Your task to perform on an android device: toggle priority inbox in the gmail app Image 0: 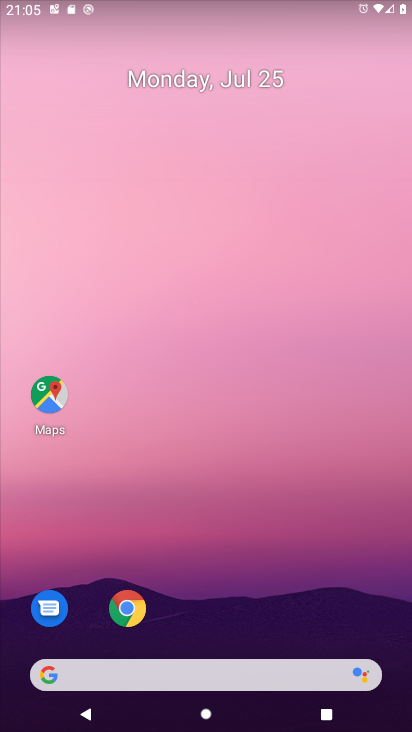
Step 0: drag from (232, 609) to (253, 36)
Your task to perform on an android device: toggle priority inbox in the gmail app Image 1: 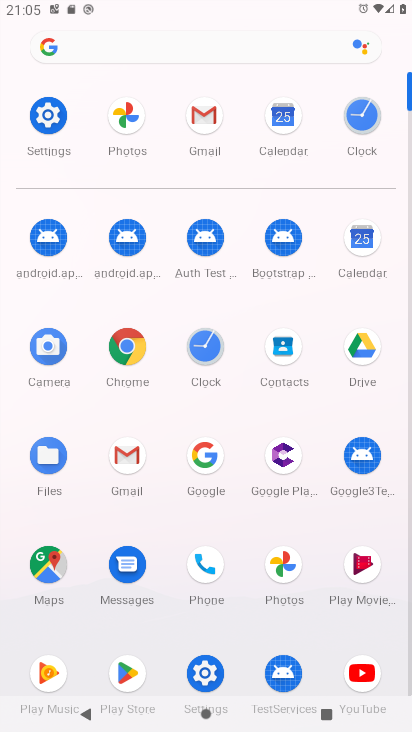
Step 1: click (133, 450)
Your task to perform on an android device: toggle priority inbox in the gmail app Image 2: 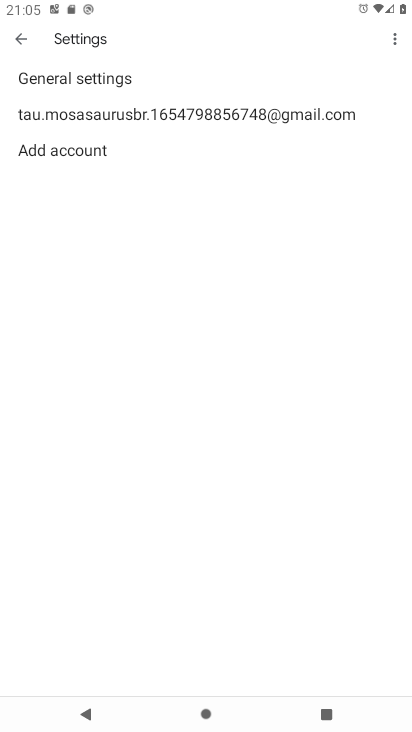
Step 2: click (149, 110)
Your task to perform on an android device: toggle priority inbox in the gmail app Image 3: 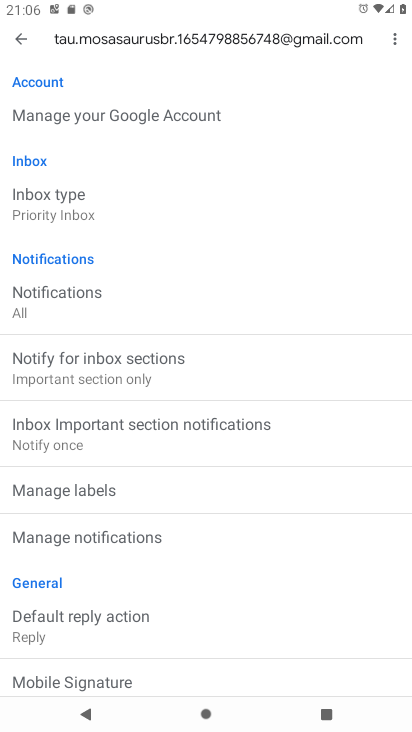
Step 3: click (64, 214)
Your task to perform on an android device: toggle priority inbox in the gmail app Image 4: 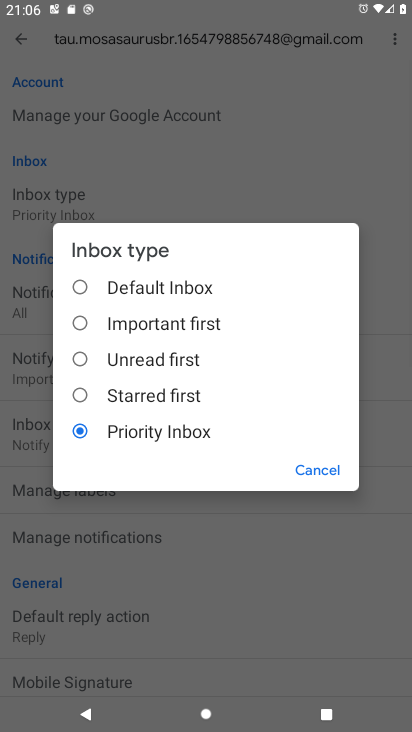
Step 4: click (98, 275)
Your task to perform on an android device: toggle priority inbox in the gmail app Image 5: 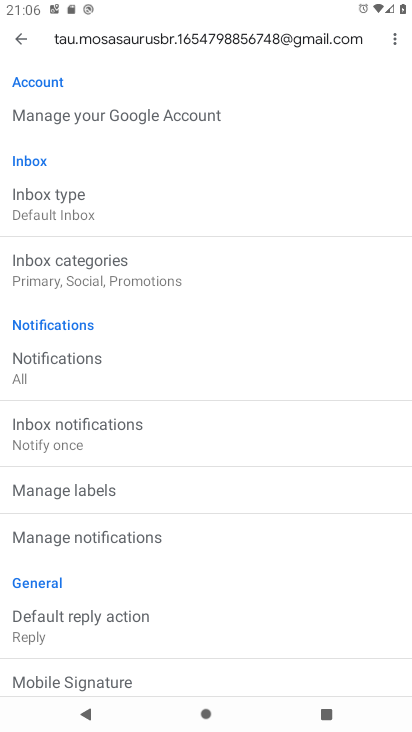
Step 5: task complete